Your task to perform on an android device: Go to battery settings Image 0: 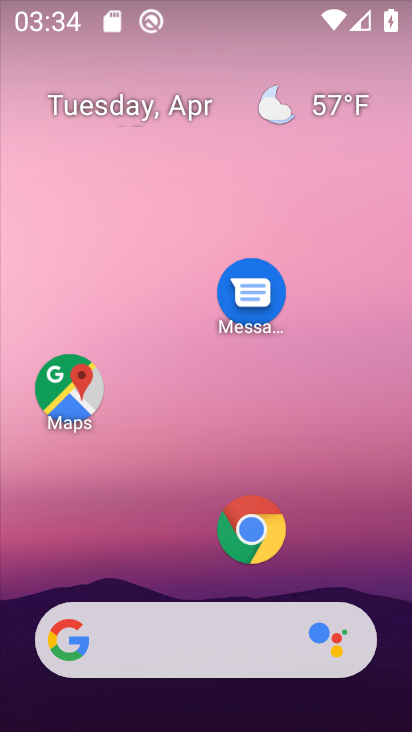
Step 0: drag from (182, 542) to (159, 160)
Your task to perform on an android device: Go to battery settings Image 1: 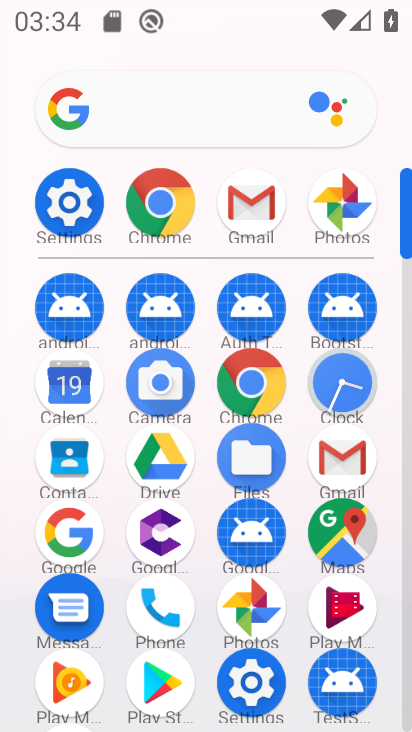
Step 1: click (64, 204)
Your task to perform on an android device: Go to battery settings Image 2: 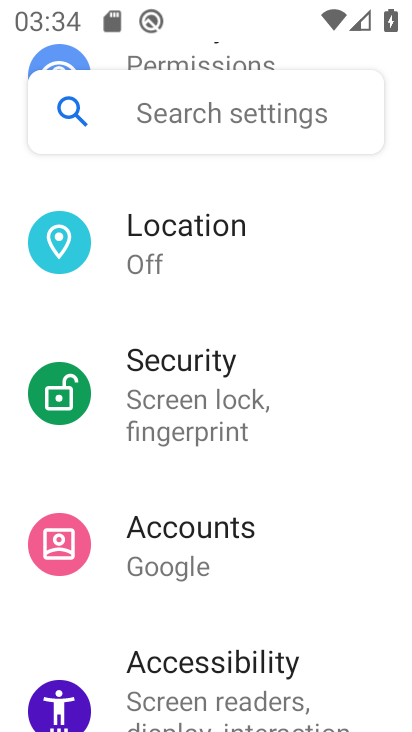
Step 2: drag from (207, 603) to (211, 677)
Your task to perform on an android device: Go to battery settings Image 3: 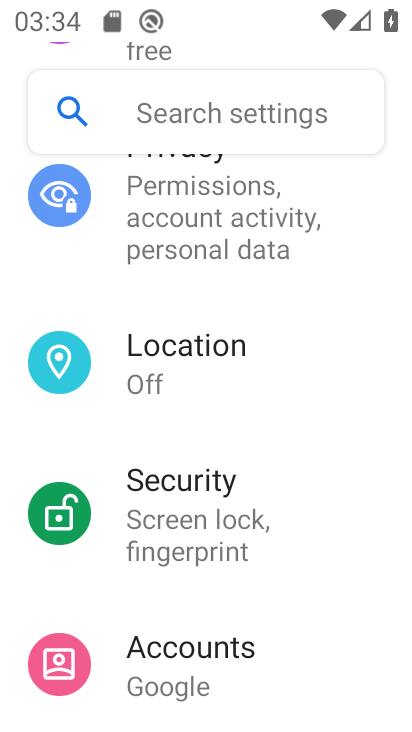
Step 3: drag from (209, 270) to (205, 603)
Your task to perform on an android device: Go to battery settings Image 4: 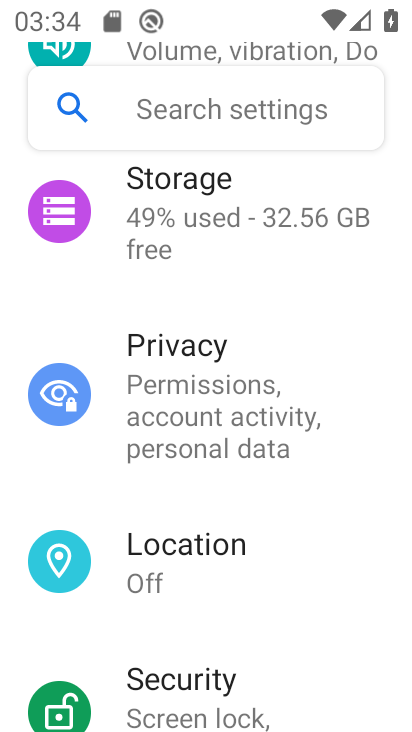
Step 4: drag from (164, 242) to (181, 633)
Your task to perform on an android device: Go to battery settings Image 5: 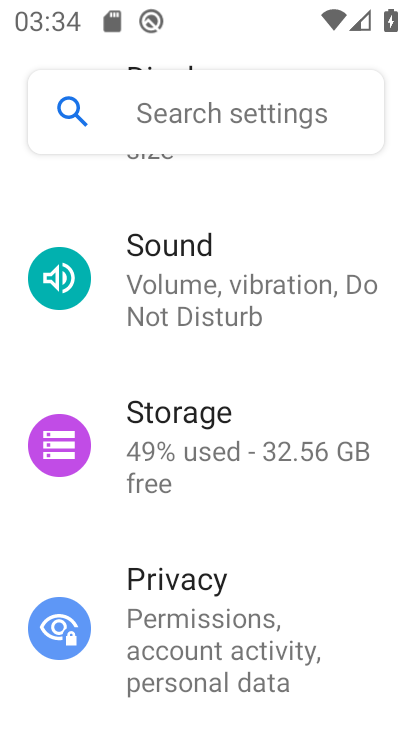
Step 5: drag from (163, 206) to (210, 621)
Your task to perform on an android device: Go to battery settings Image 6: 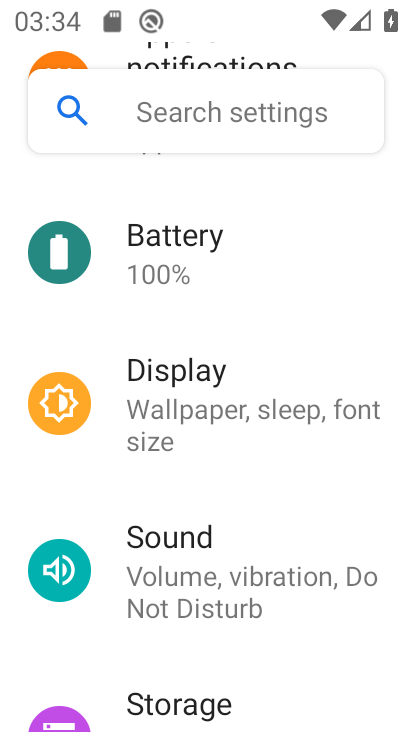
Step 6: click (191, 261)
Your task to perform on an android device: Go to battery settings Image 7: 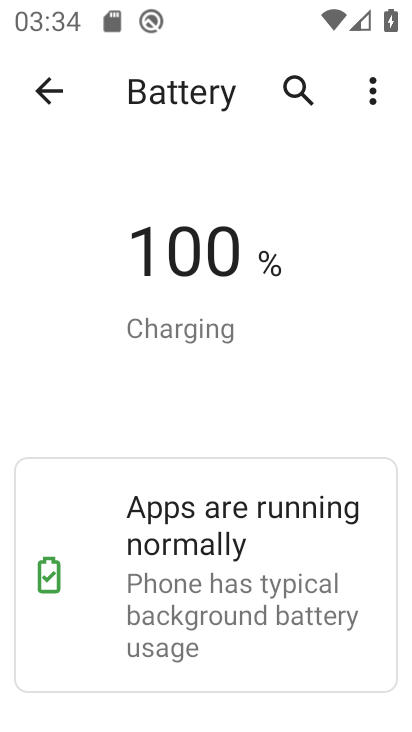
Step 7: task complete